Your task to perform on an android device: Go to CNN.com Image 0: 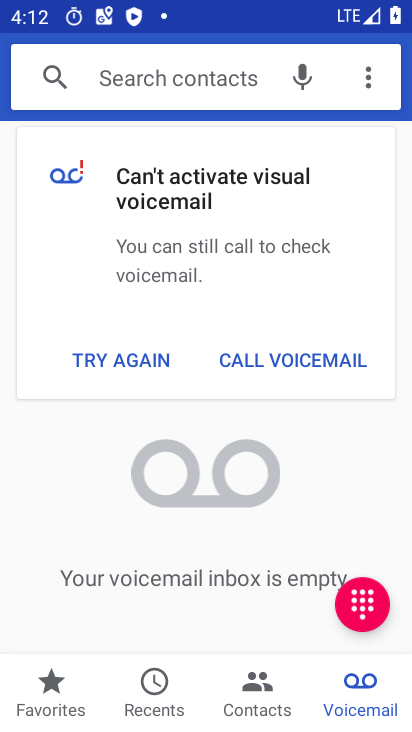
Step 0: press home button
Your task to perform on an android device: Go to CNN.com Image 1: 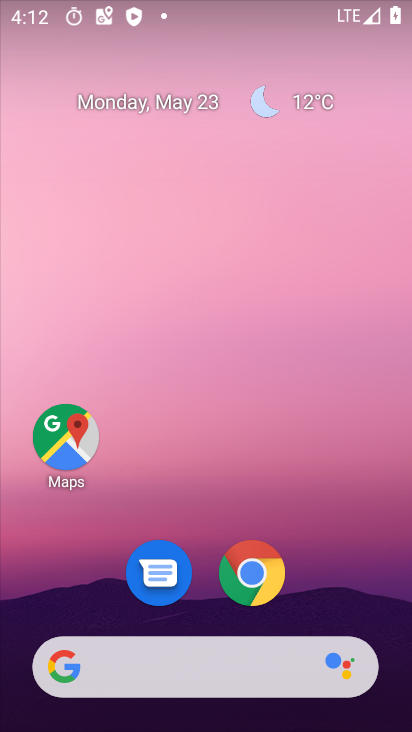
Step 1: click (258, 571)
Your task to perform on an android device: Go to CNN.com Image 2: 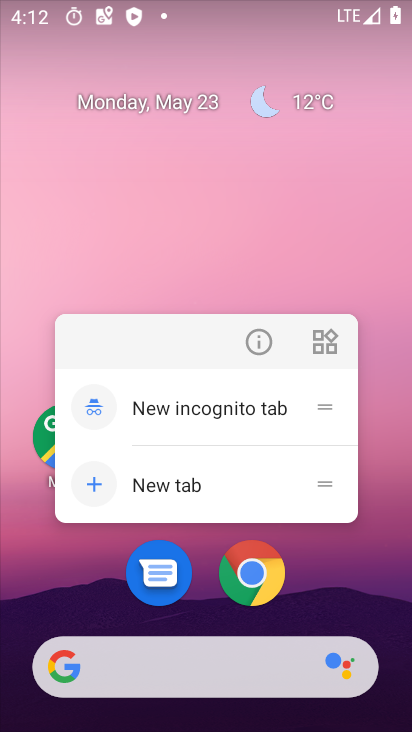
Step 2: click (241, 590)
Your task to perform on an android device: Go to CNN.com Image 3: 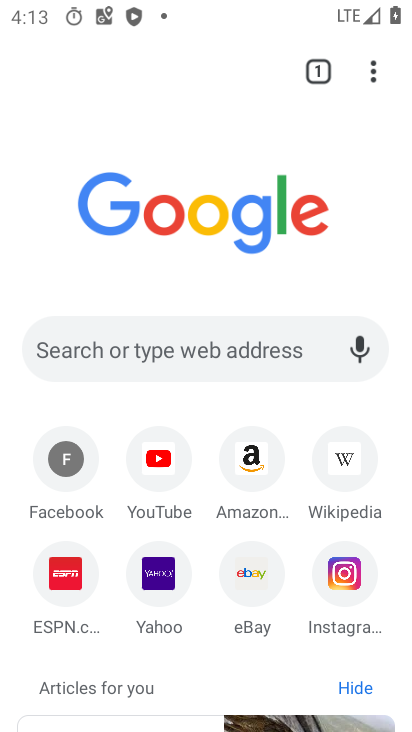
Step 3: click (224, 342)
Your task to perform on an android device: Go to CNN.com Image 4: 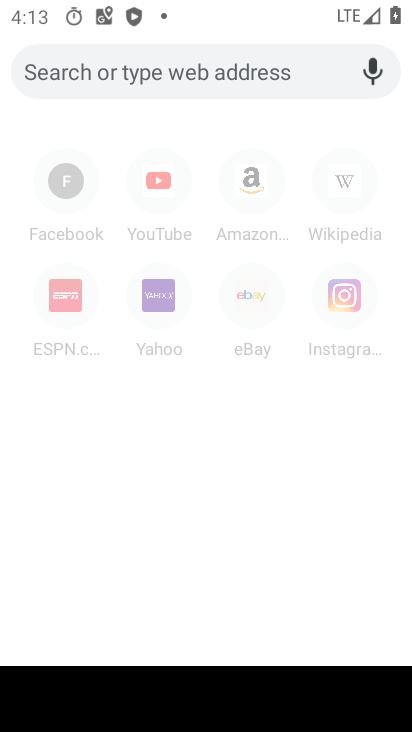
Step 4: type "CNN.com"
Your task to perform on an android device: Go to CNN.com Image 5: 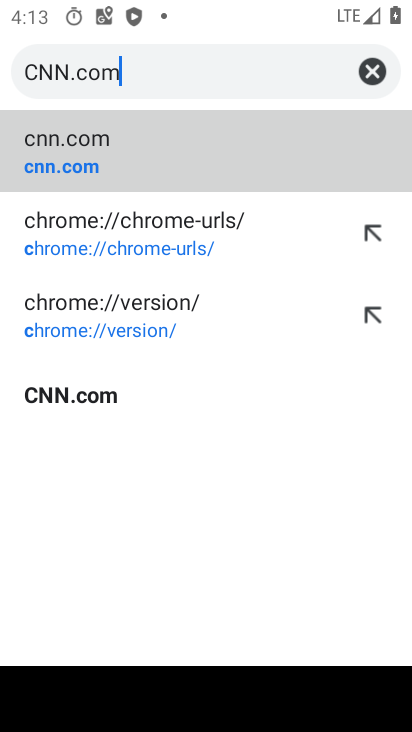
Step 5: type ""
Your task to perform on an android device: Go to CNN.com Image 6: 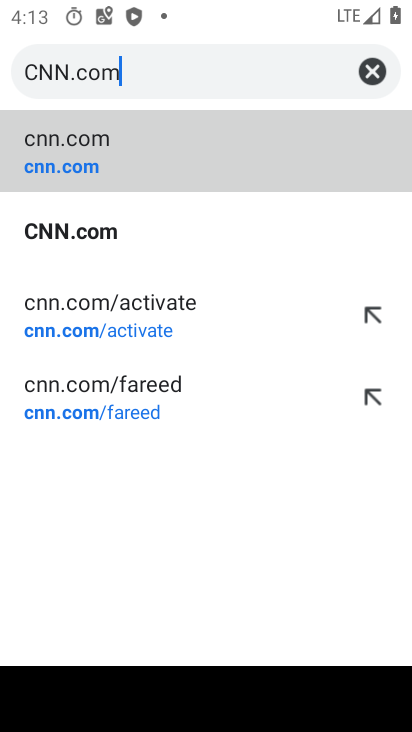
Step 6: click (96, 233)
Your task to perform on an android device: Go to CNN.com Image 7: 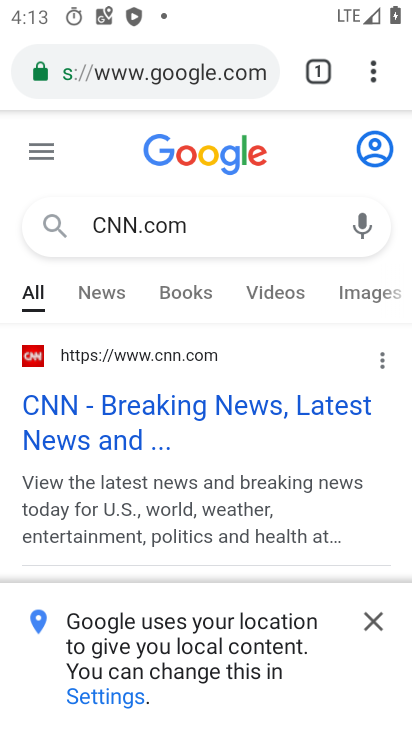
Step 7: click (179, 417)
Your task to perform on an android device: Go to CNN.com Image 8: 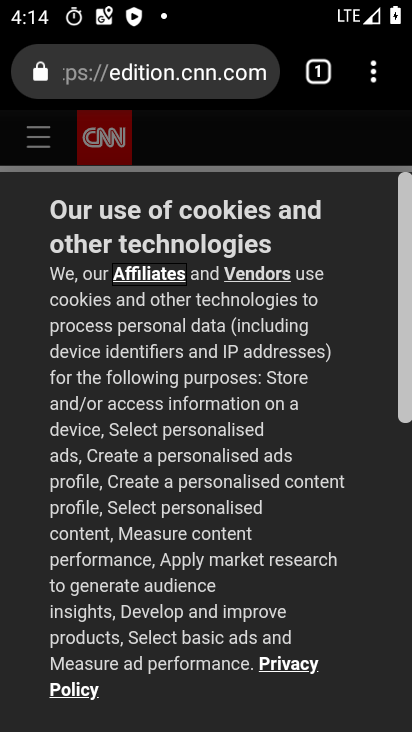
Step 8: task complete